Your task to perform on an android device: open app "Gmail" Image 0: 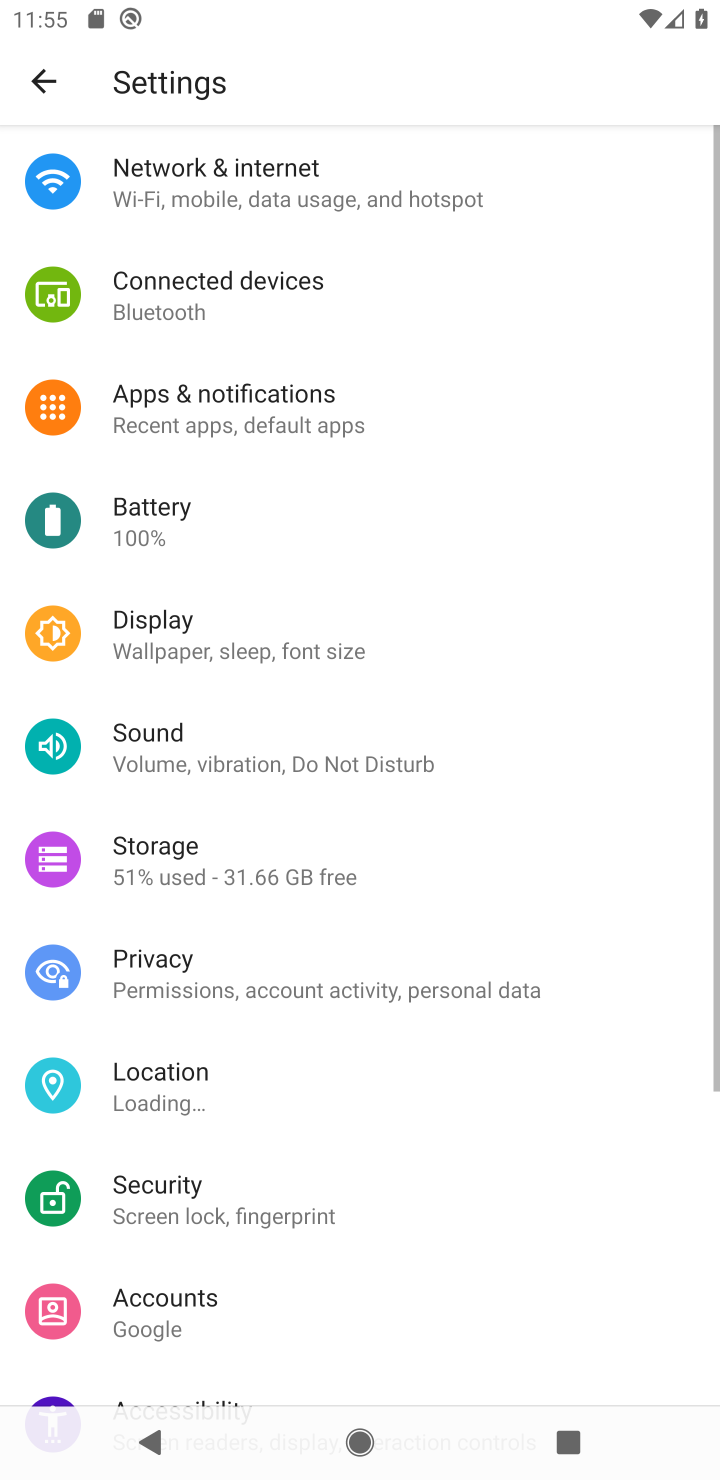
Step 0: press home button
Your task to perform on an android device: open app "Gmail" Image 1: 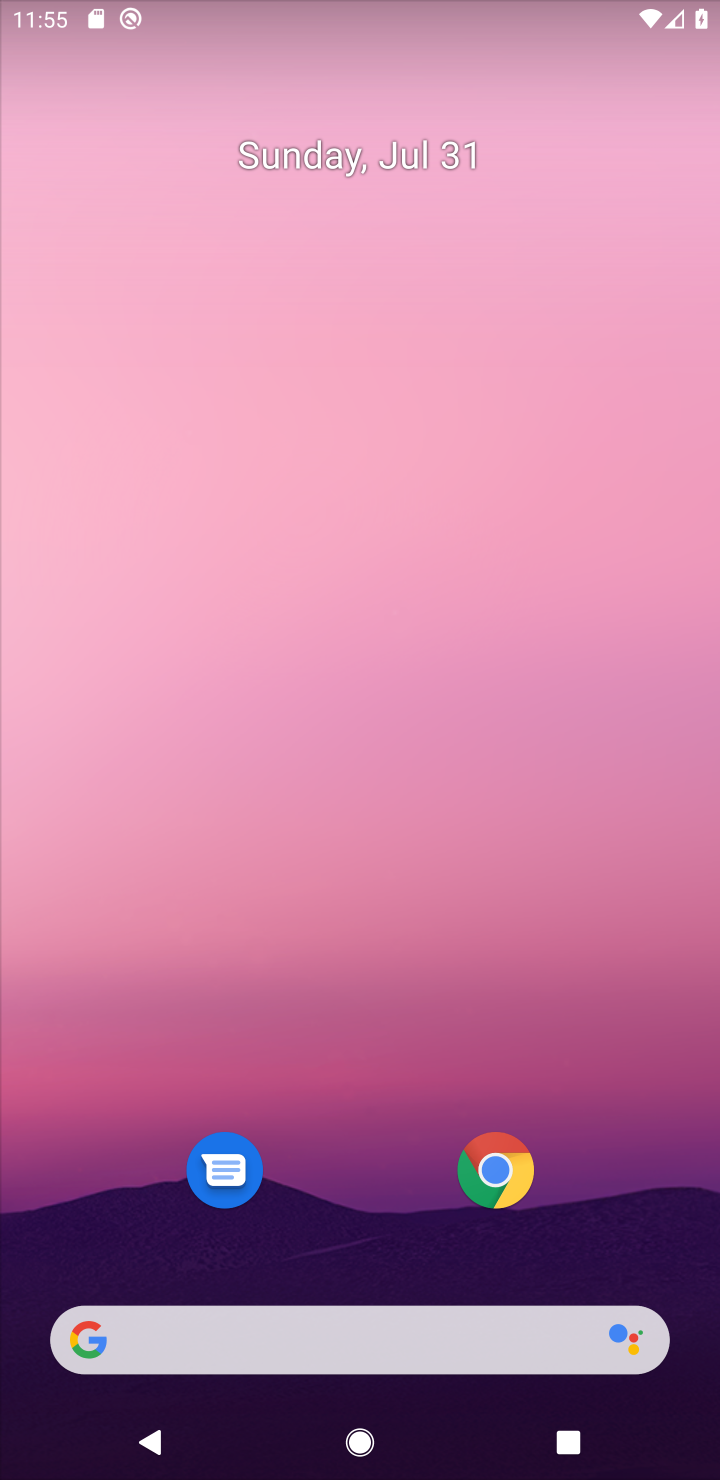
Step 1: drag from (588, 894) to (436, 12)
Your task to perform on an android device: open app "Gmail" Image 2: 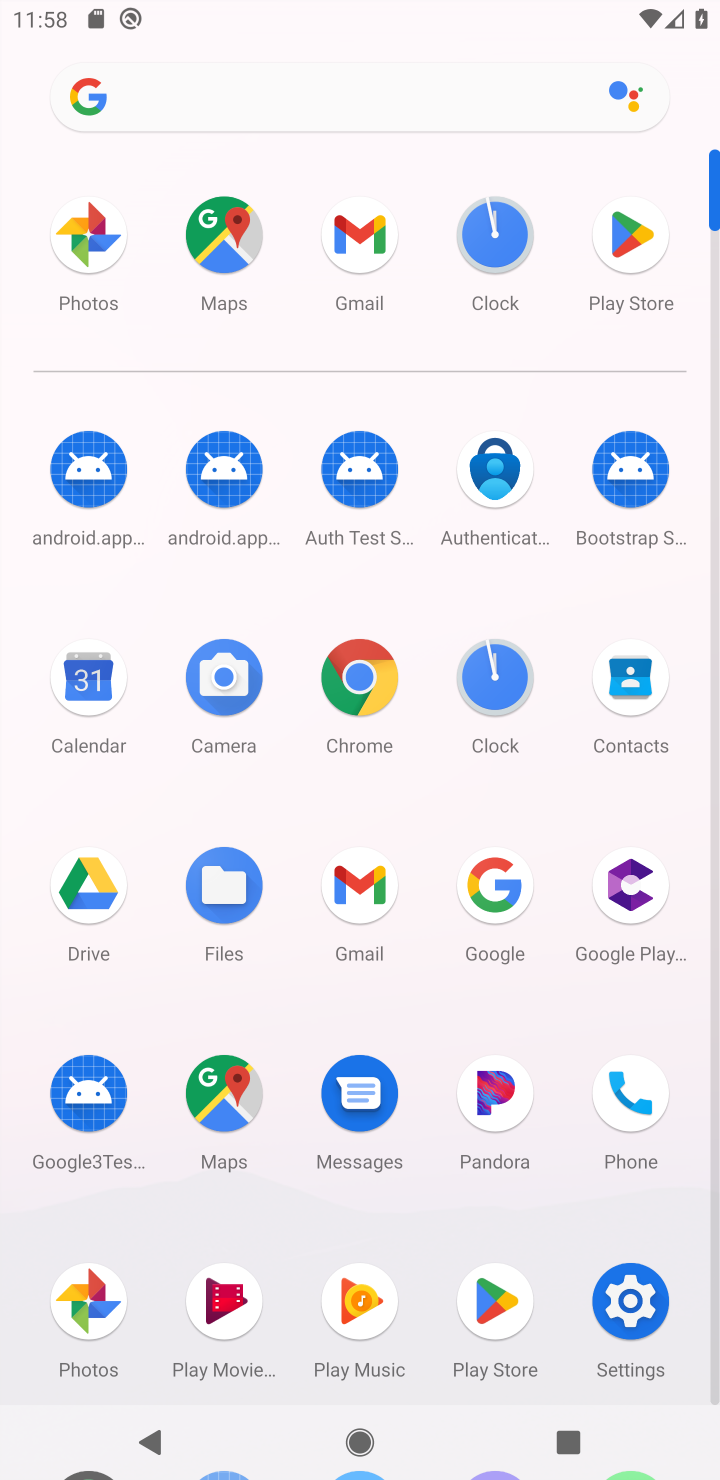
Step 2: click (641, 235)
Your task to perform on an android device: open app "Gmail" Image 3: 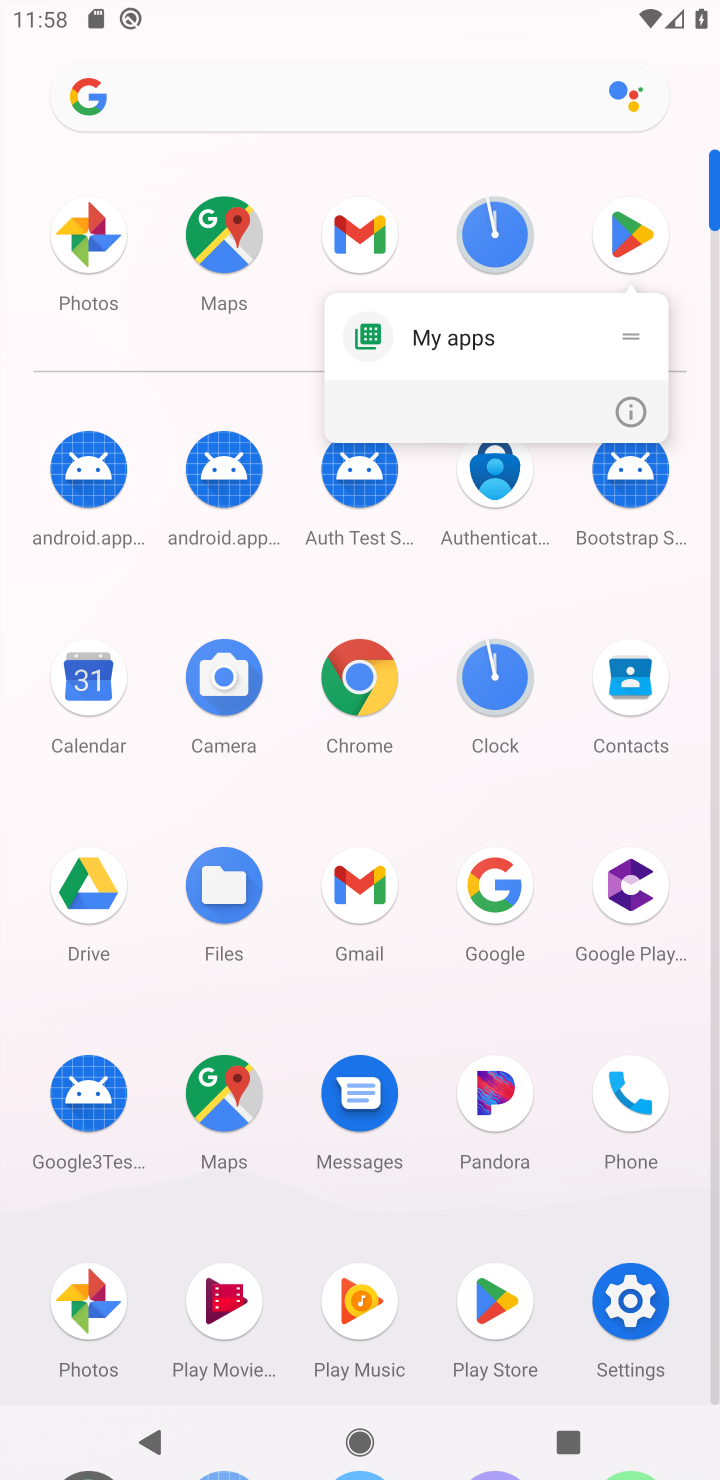
Step 3: click (634, 223)
Your task to perform on an android device: open app "Gmail" Image 4: 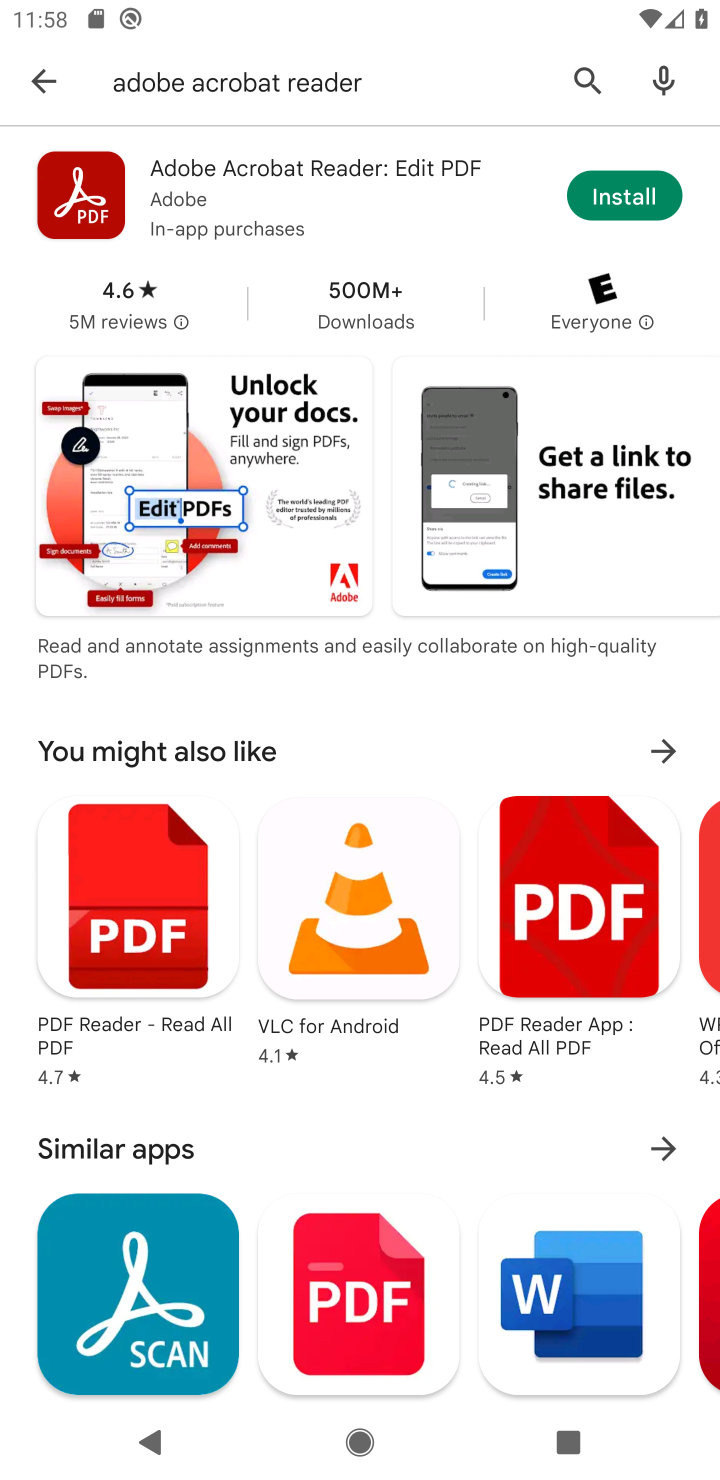
Step 4: press back button
Your task to perform on an android device: open app "Gmail" Image 5: 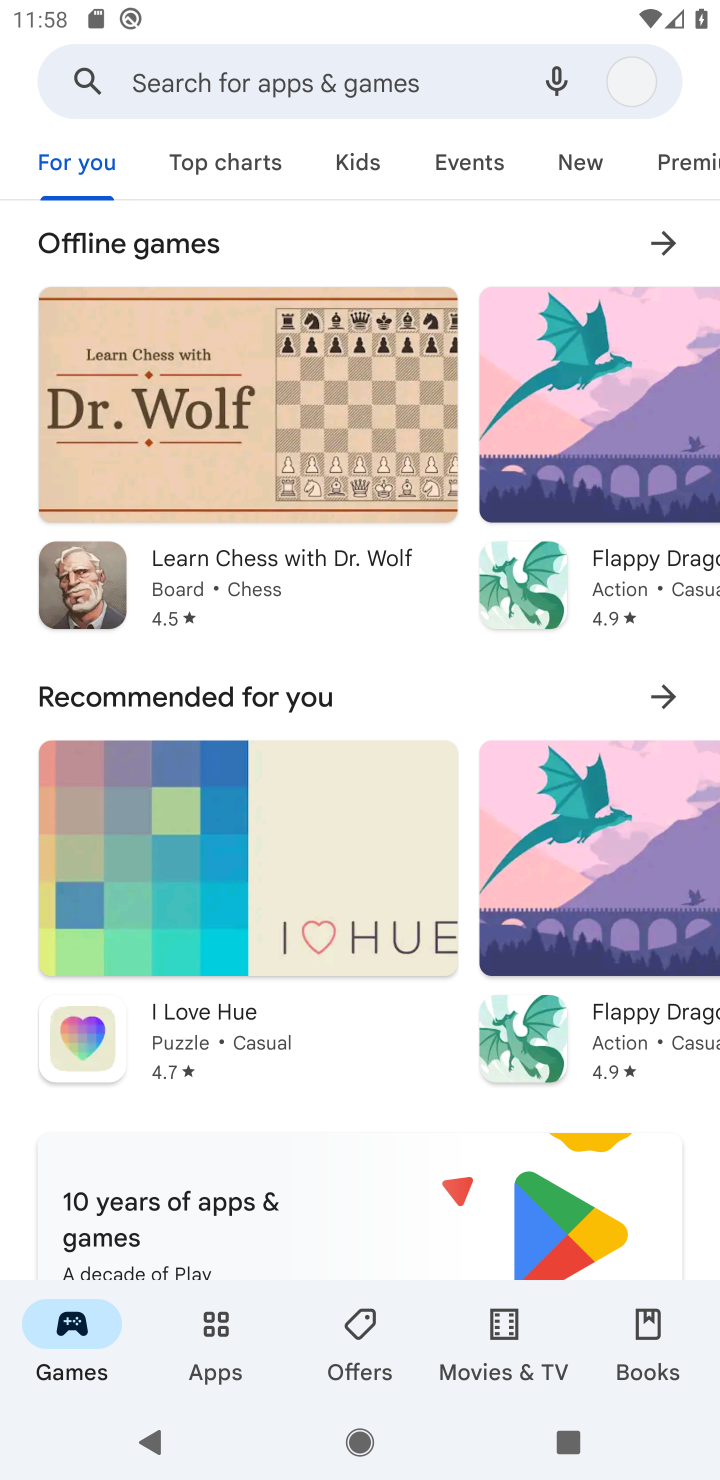
Step 5: click (257, 76)
Your task to perform on an android device: open app "Gmail" Image 6: 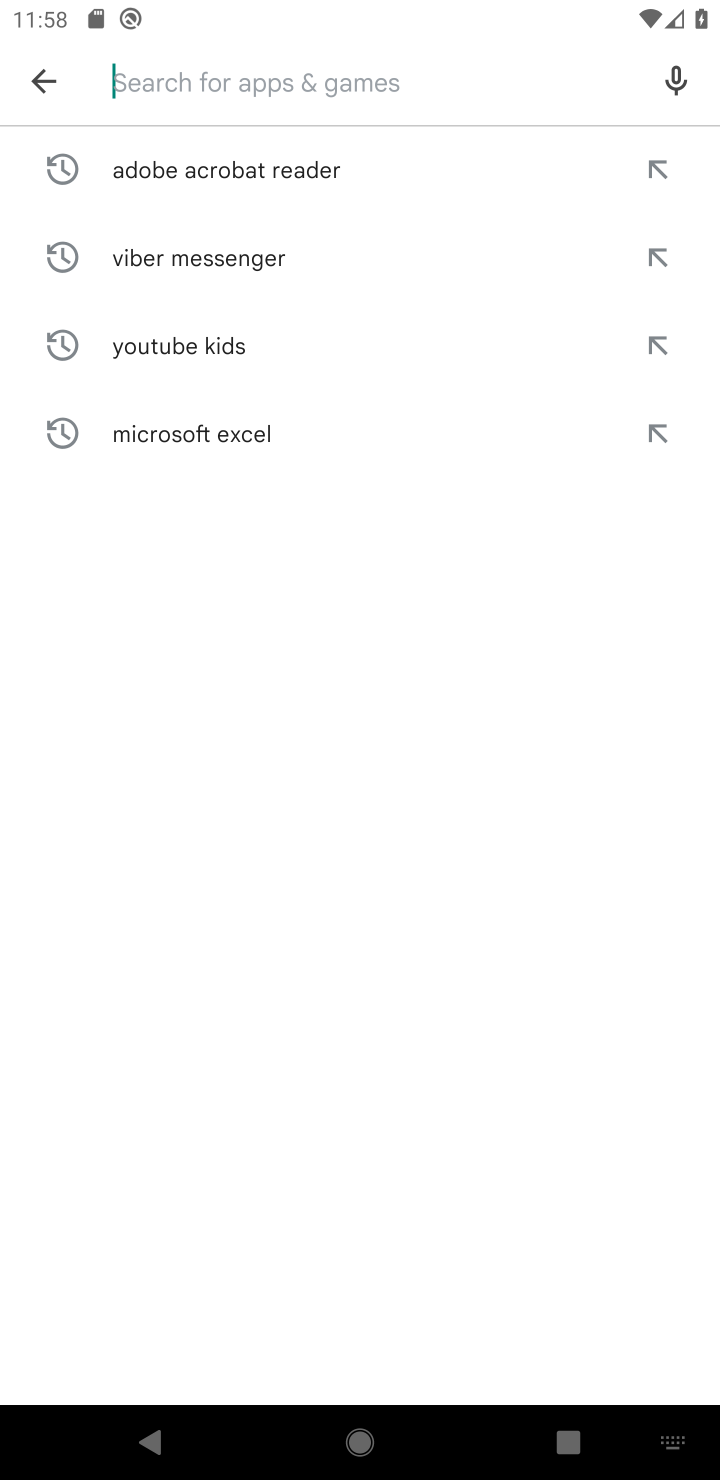
Step 6: type "Gmail"
Your task to perform on an android device: open app "Gmail" Image 7: 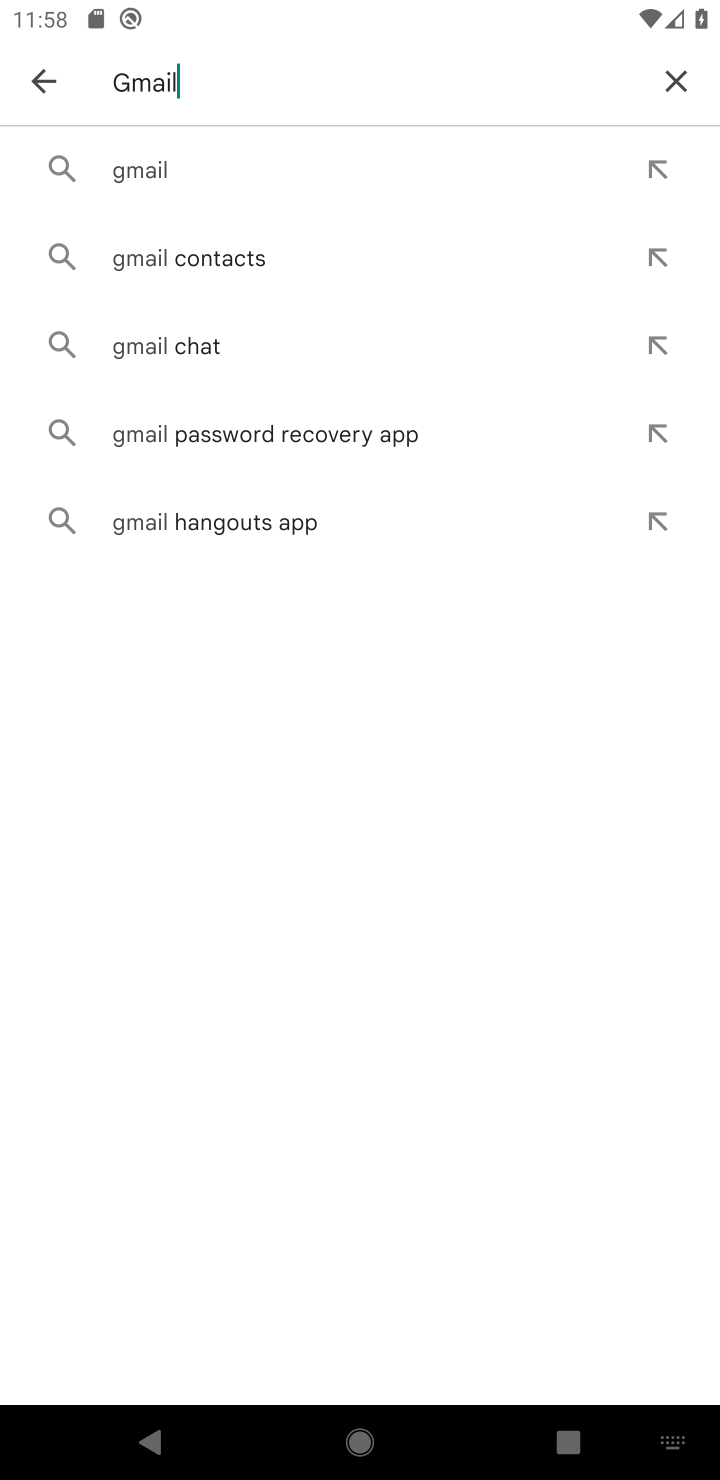
Step 7: click (140, 176)
Your task to perform on an android device: open app "Gmail" Image 8: 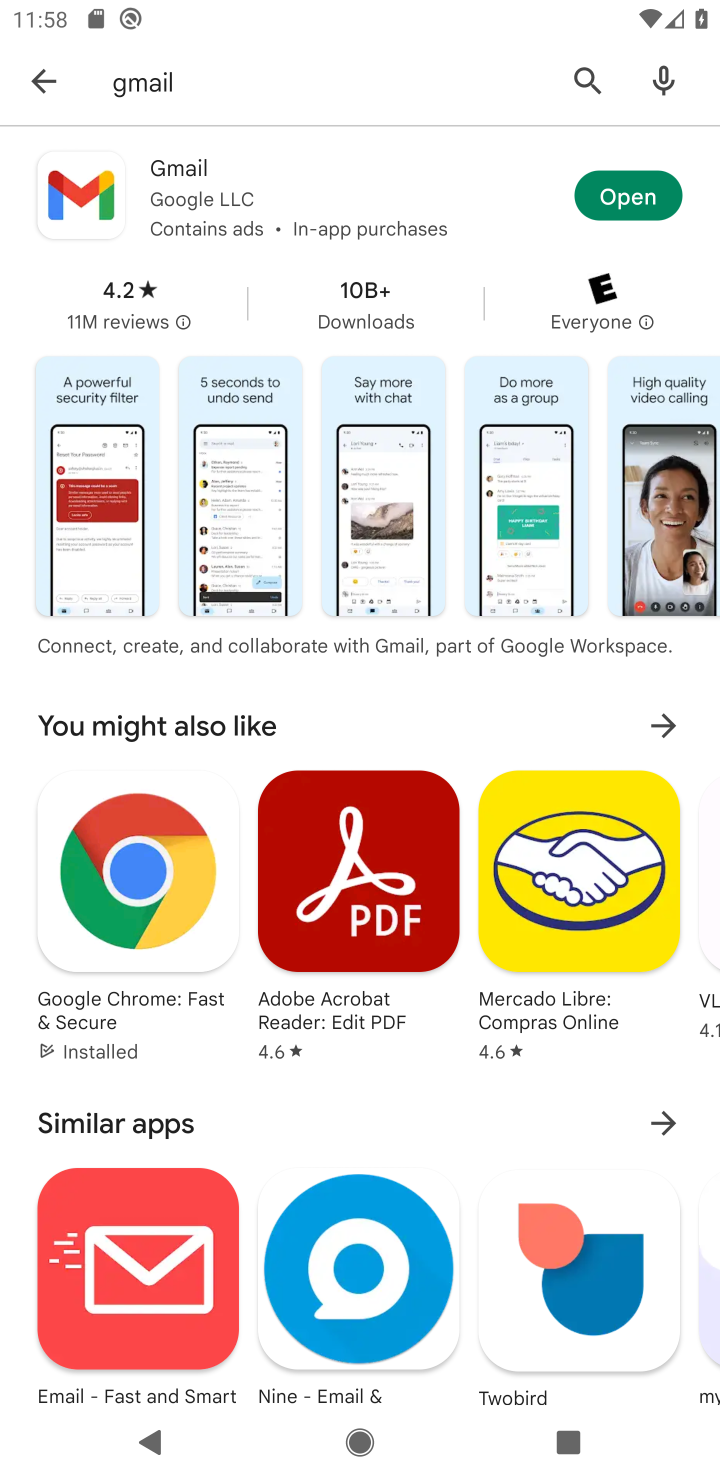
Step 8: click (628, 203)
Your task to perform on an android device: open app "Gmail" Image 9: 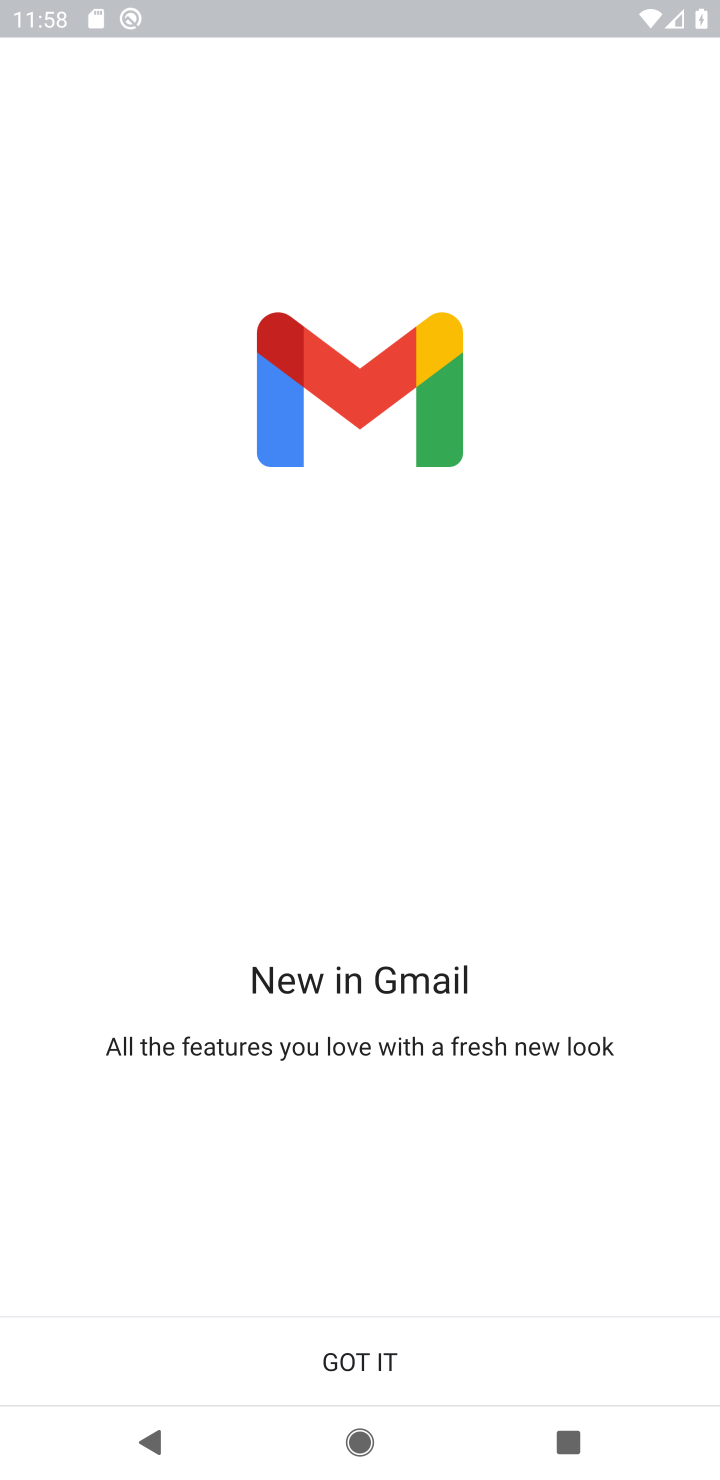
Step 9: task complete